Your task to perform on an android device: Go to Reddit.com Image 0: 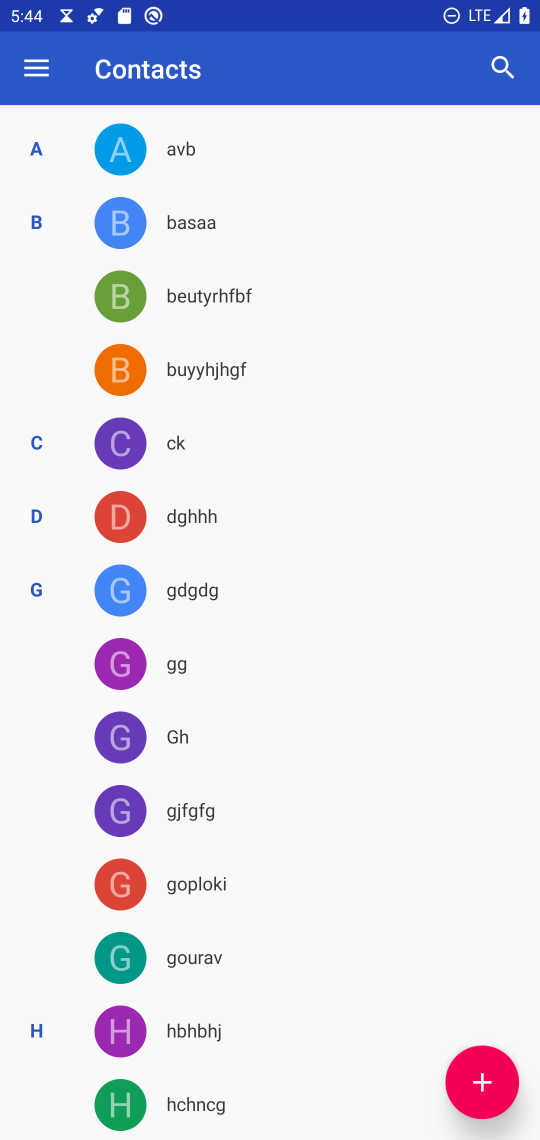
Step 0: press home button
Your task to perform on an android device: Go to Reddit.com Image 1: 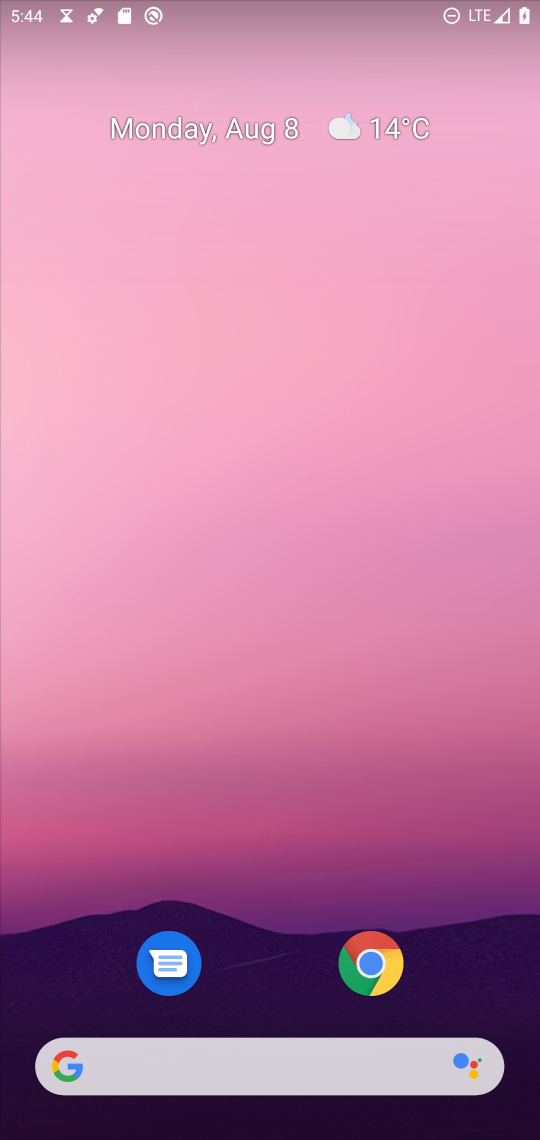
Step 1: click (366, 960)
Your task to perform on an android device: Go to Reddit.com Image 2: 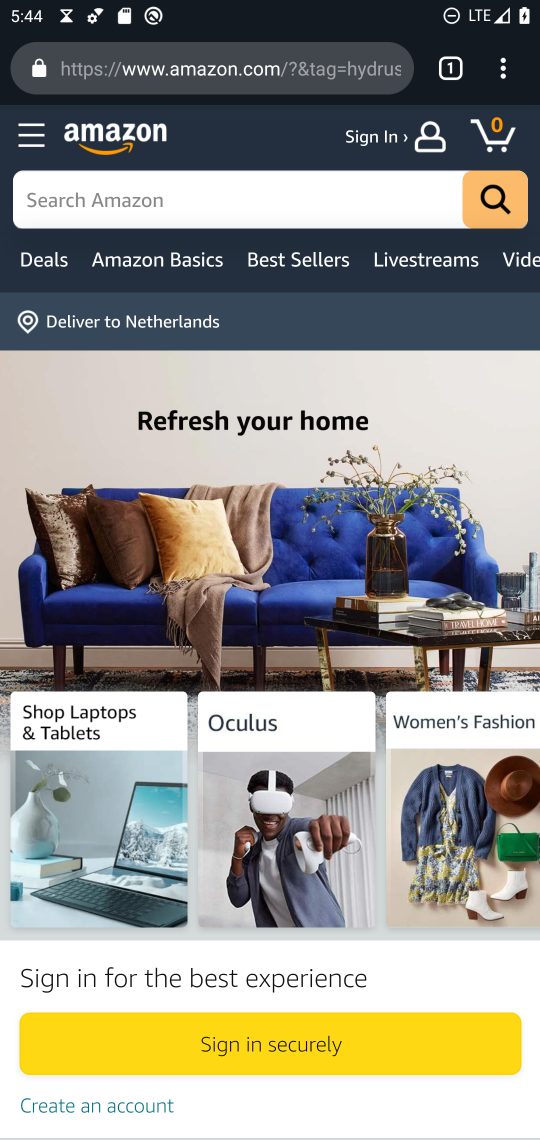
Step 2: click (208, 78)
Your task to perform on an android device: Go to Reddit.com Image 3: 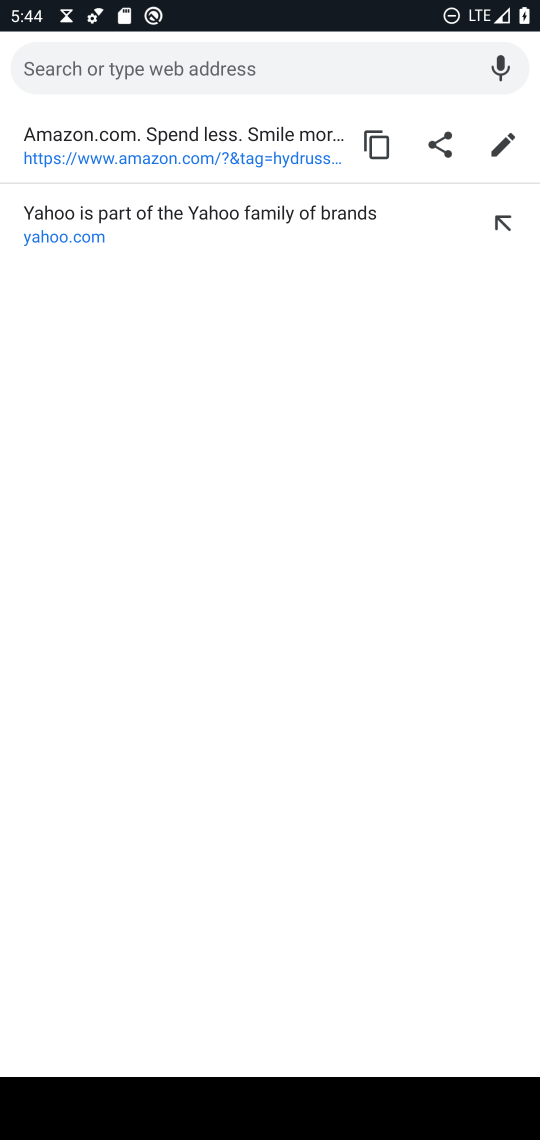
Step 3: type "reddit.com"
Your task to perform on an android device: Go to Reddit.com Image 4: 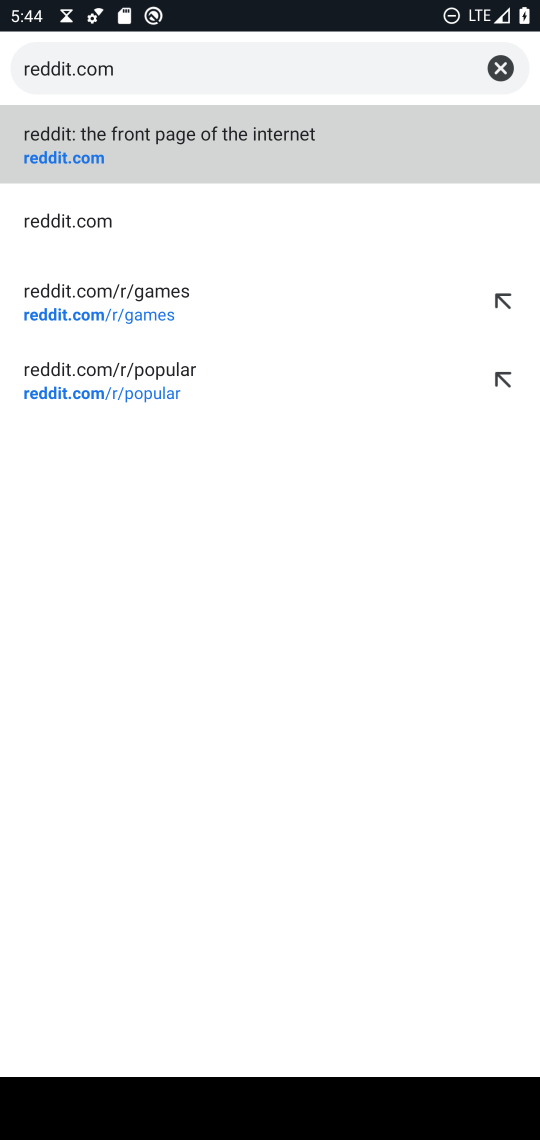
Step 4: click (284, 113)
Your task to perform on an android device: Go to Reddit.com Image 5: 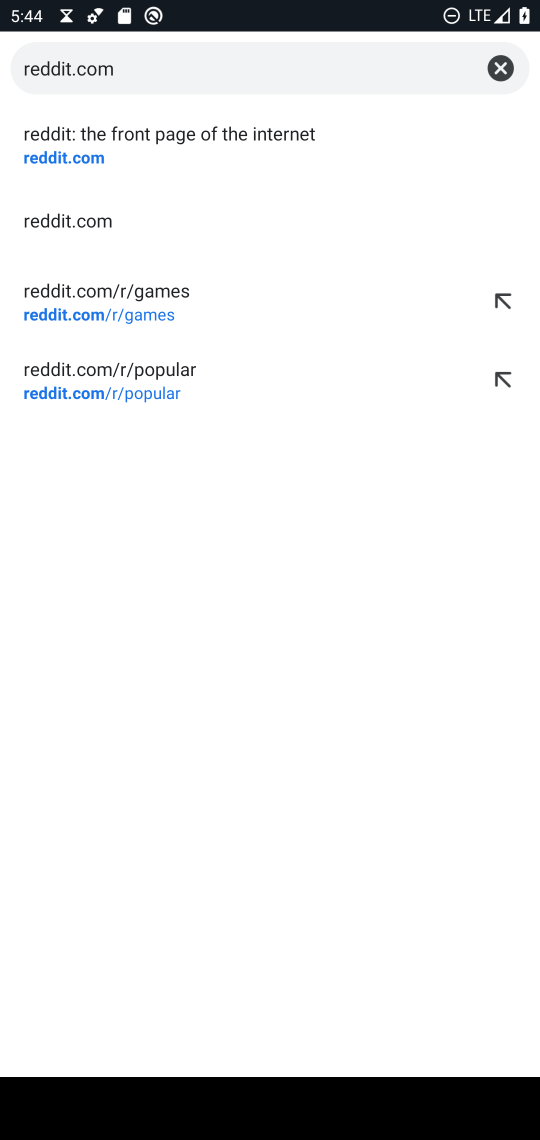
Step 5: click (138, 141)
Your task to perform on an android device: Go to Reddit.com Image 6: 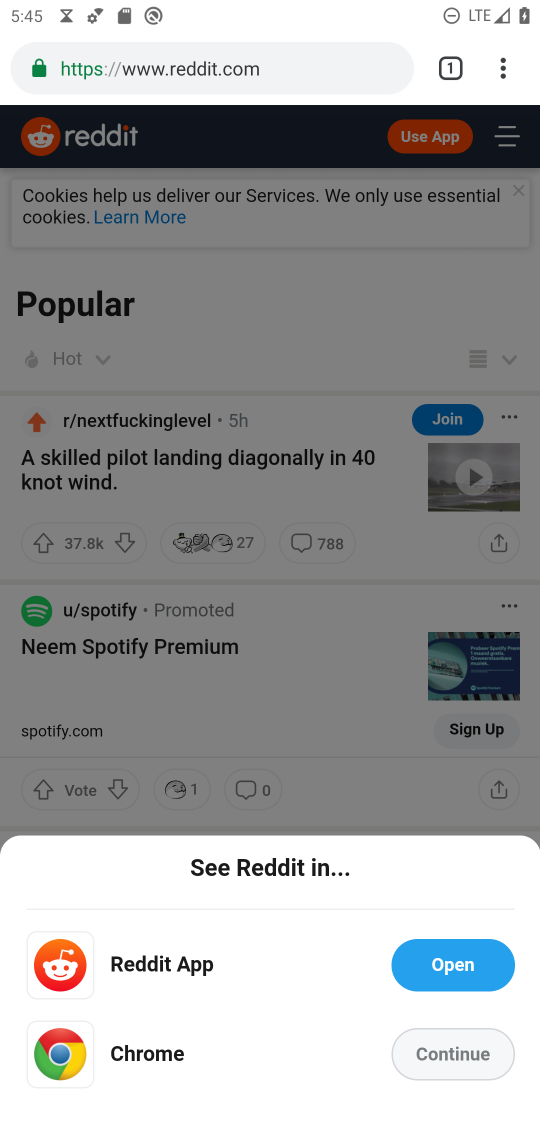
Step 6: task complete